Your task to perform on an android device: refresh tabs in the chrome app Image 0: 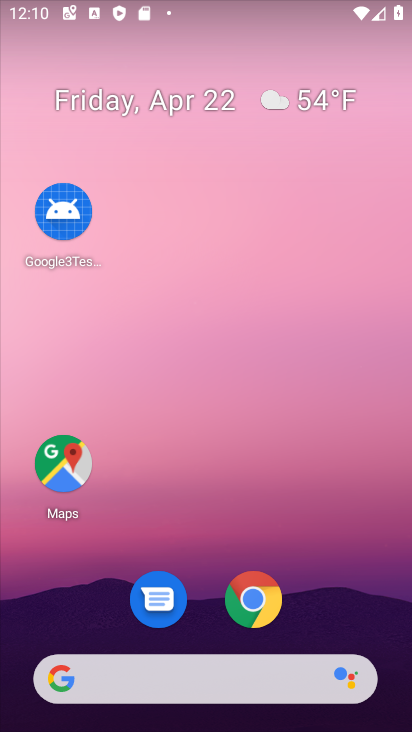
Step 0: click (249, 598)
Your task to perform on an android device: refresh tabs in the chrome app Image 1: 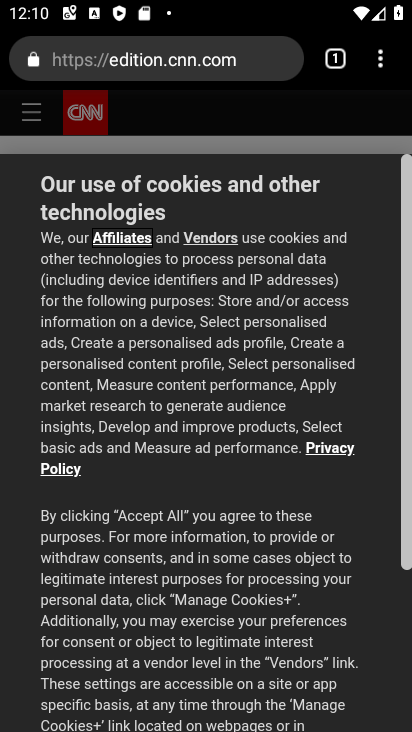
Step 1: click (377, 68)
Your task to perform on an android device: refresh tabs in the chrome app Image 2: 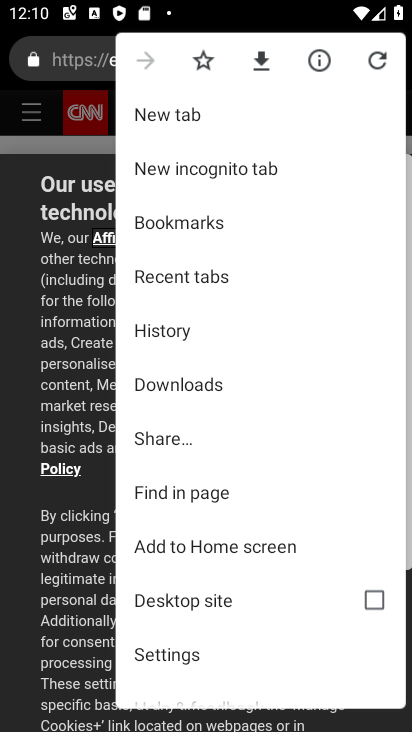
Step 2: click (378, 63)
Your task to perform on an android device: refresh tabs in the chrome app Image 3: 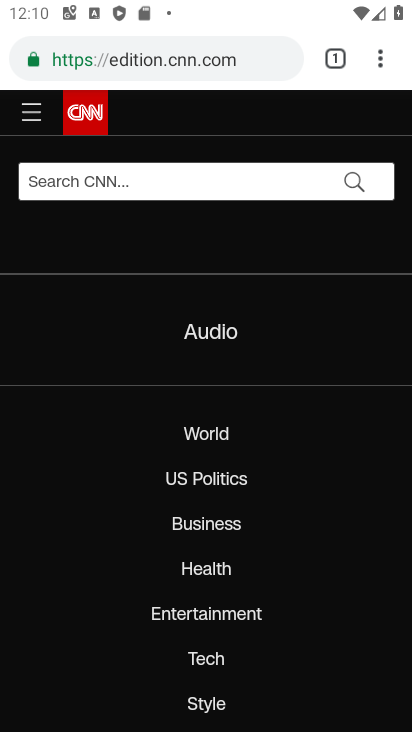
Step 3: task complete